Your task to perform on an android device: all mails in gmail Image 0: 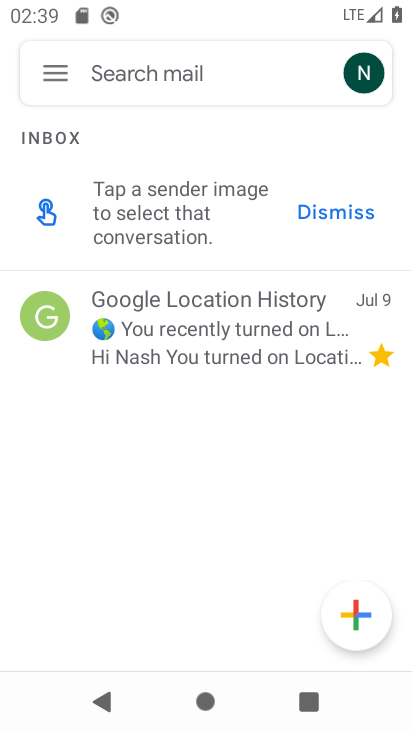
Step 0: click (54, 70)
Your task to perform on an android device: all mails in gmail Image 1: 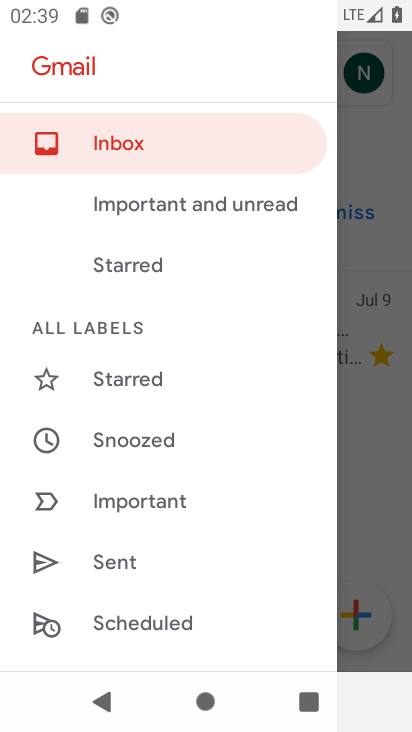
Step 1: drag from (143, 537) to (167, 185)
Your task to perform on an android device: all mails in gmail Image 2: 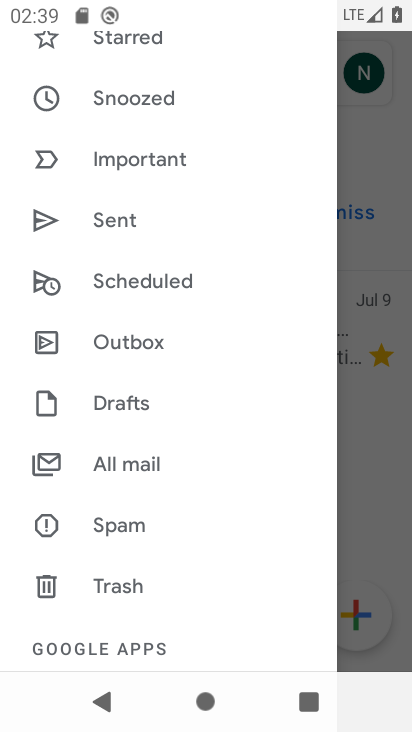
Step 2: click (135, 453)
Your task to perform on an android device: all mails in gmail Image 3: 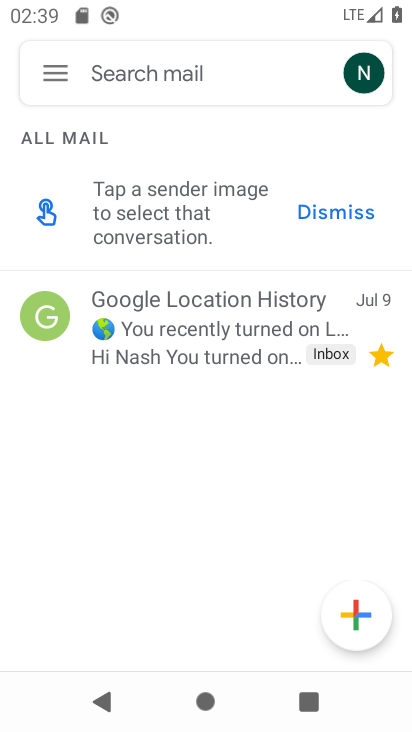
Step 3: task complete